Your task to perform on an android device: turn smart compose on in the gmail app Image 0: 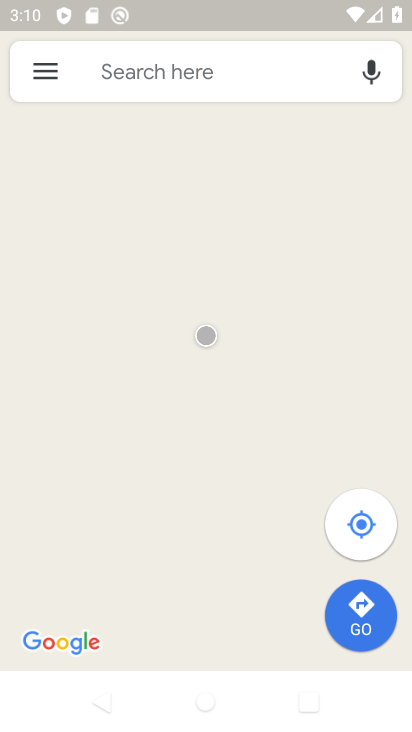
Step 0: press home button
Your task to perform on an android device: turn smart compose on in the gmail app Image 1: 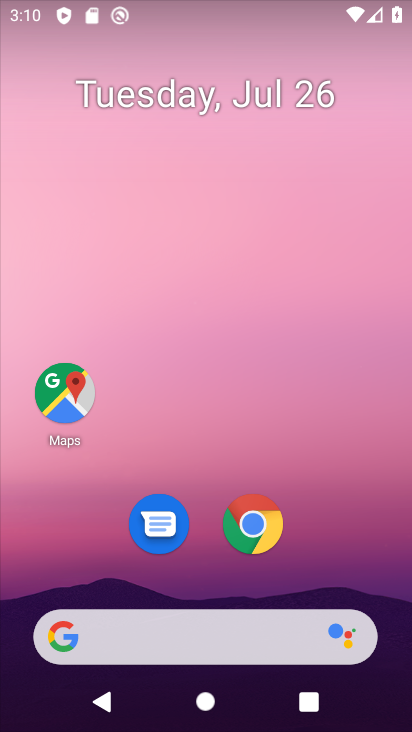
Step 1: drag from (317, 515) to (348, 92)
Your task to perform on an android device: turn smart compose on in the gmail app Image 2: 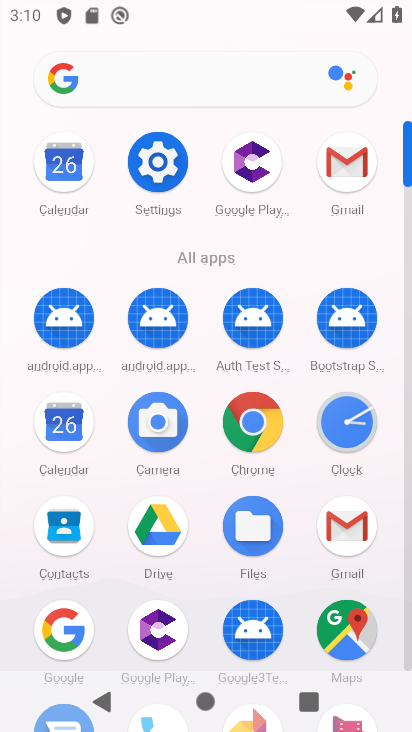
Step 2: click (346, 178)
Your task to perform on an android device: turn smart compose on in the gmail app Image 3: 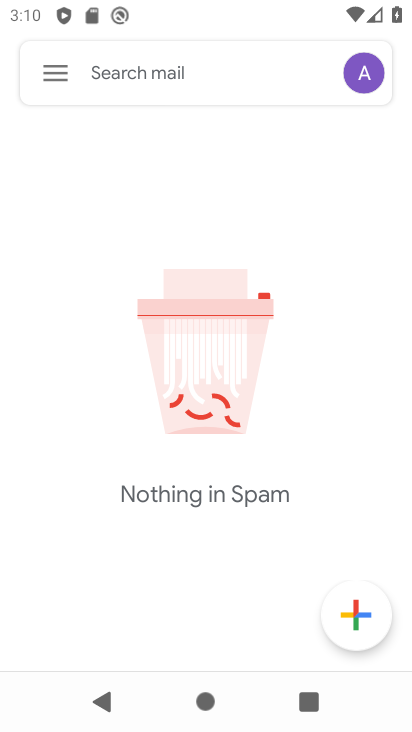
Step 3: click (63, 68)
Your task to perform on an android device: turn smart compose on in the gmail app Image 4: 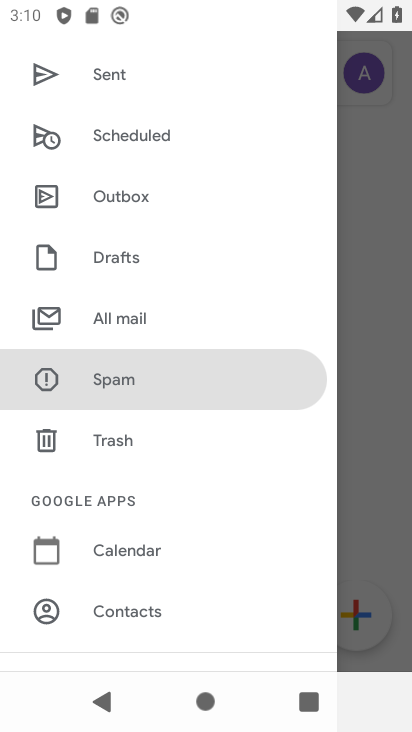
Step 4: drag from (149, 540) to (219, 301)
Your task to perform on an android device: turn smart compose on in the gmail app Image 5: 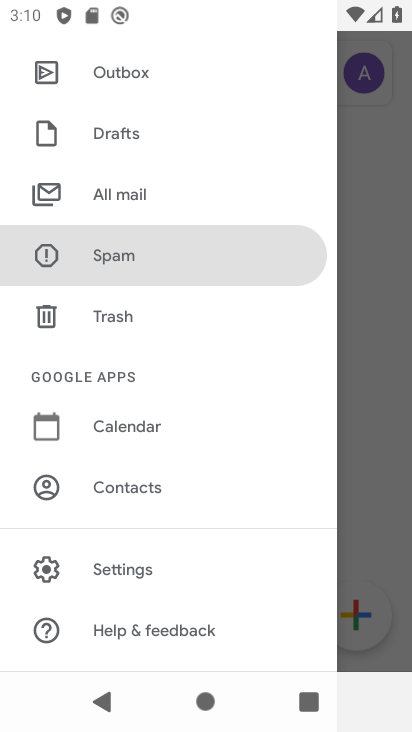
Step 5: click (127, 561)
Your task to perform on an android device: turn smart compose on in the gmail app Image 6: 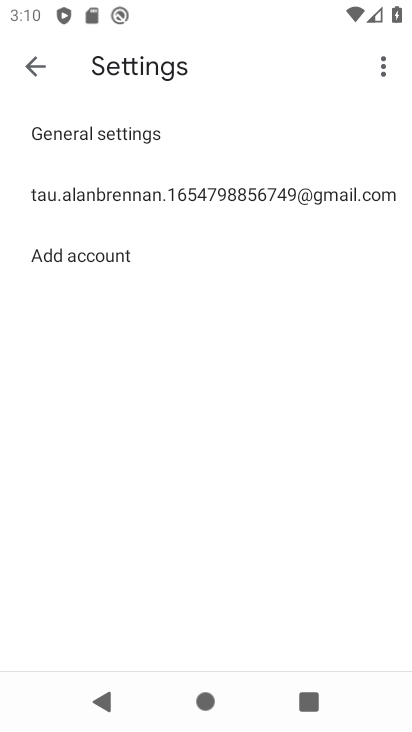
Step 6: click (185, 195)
Your task to perform on an android device: turn smart compose on in the gmail app Image 7: 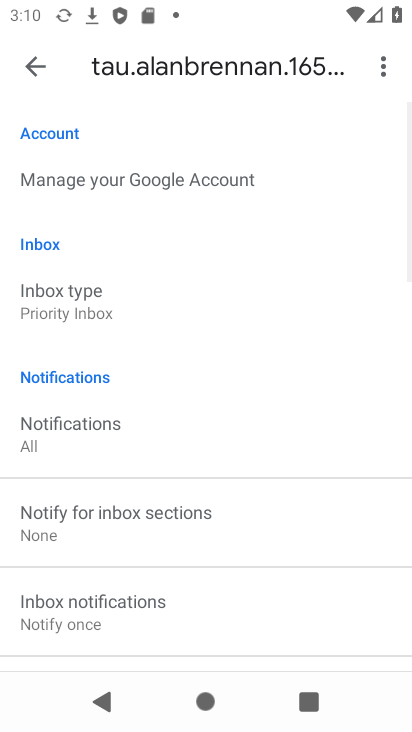
Step 7: task complete